Your task to perform on an android device: open app "Indeed Job Search" Image 0: 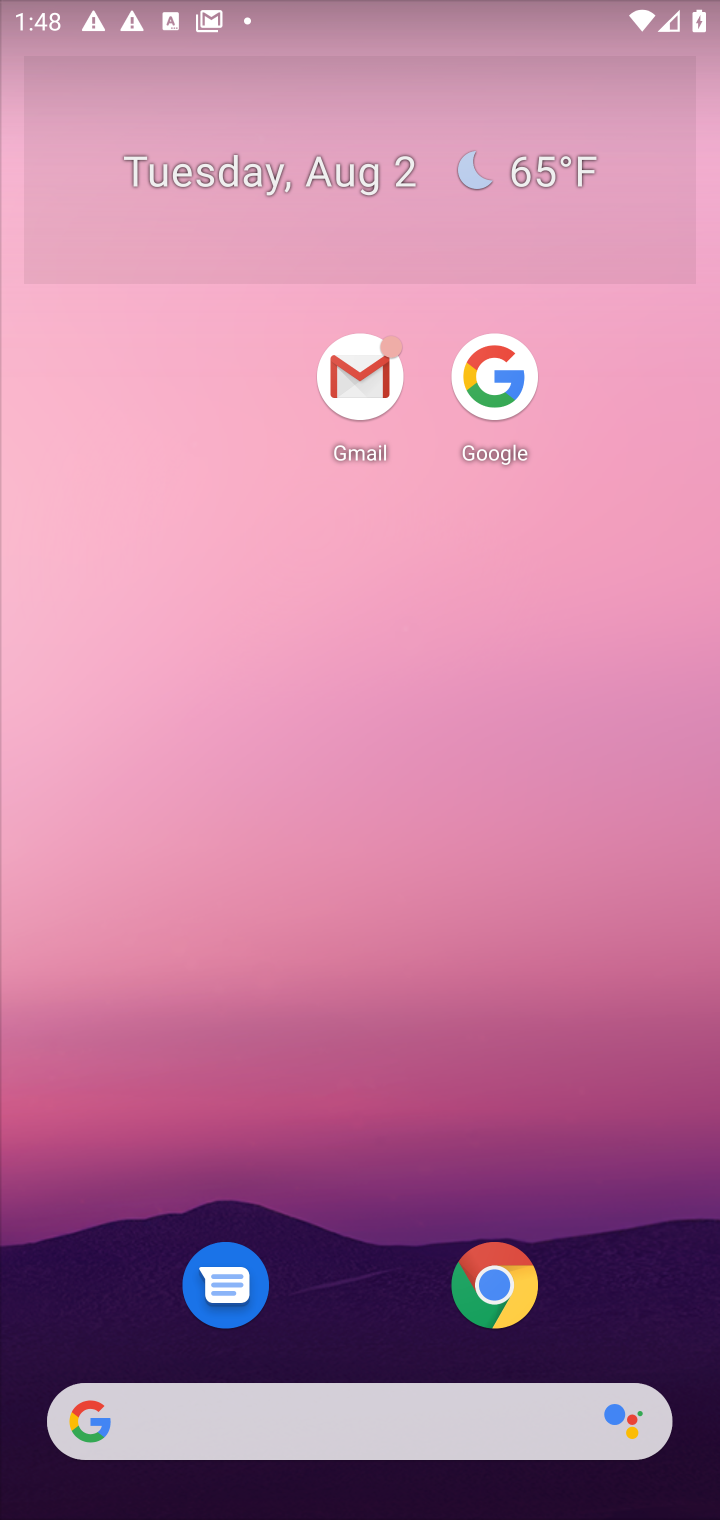
Step 0: drag from (551, 1115) to (542, 79)
Your task to perform on an android device: open app "Indeed Job Search" Image 1: 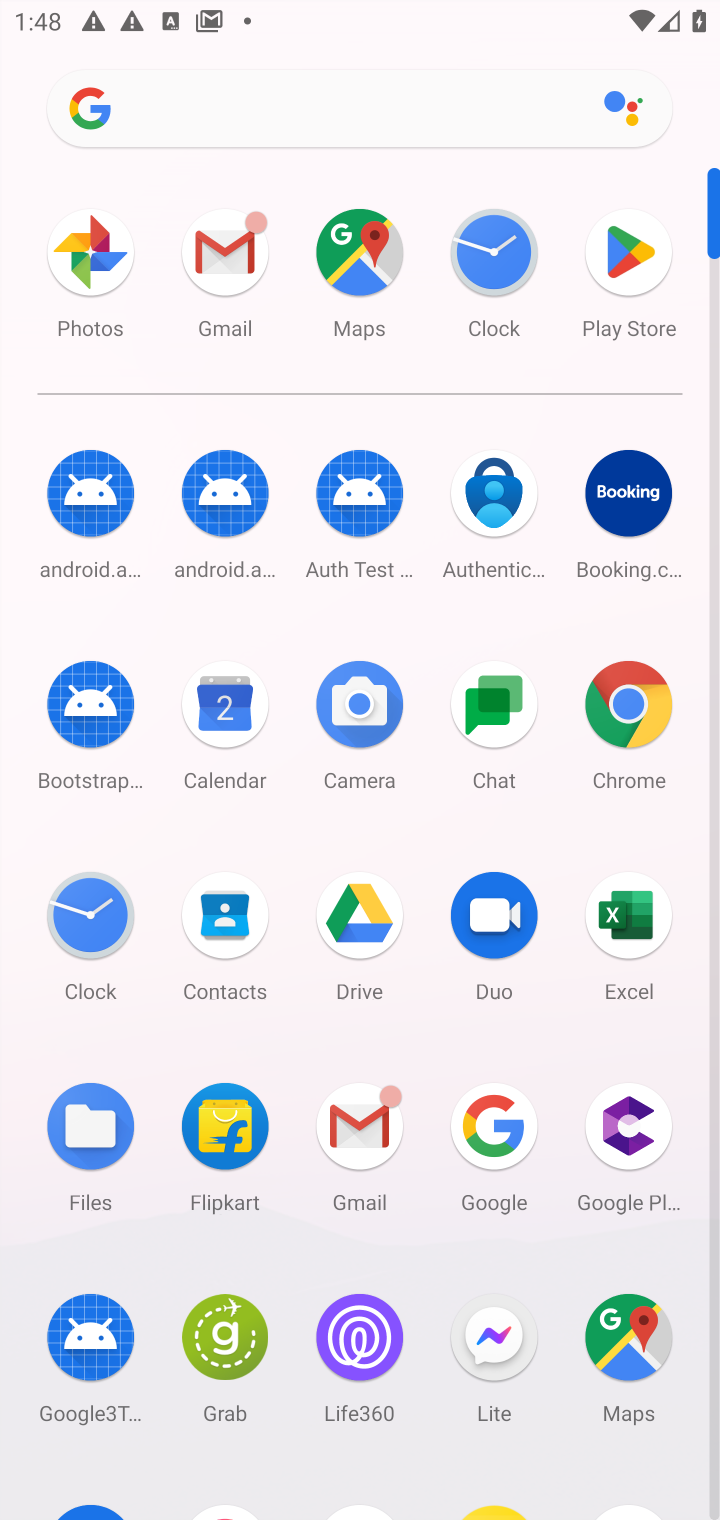
Step 1: drag from (428, 1024) to (447, 437)
Your task to perform on an android device: open app "Indeed Job Search" Image 2: 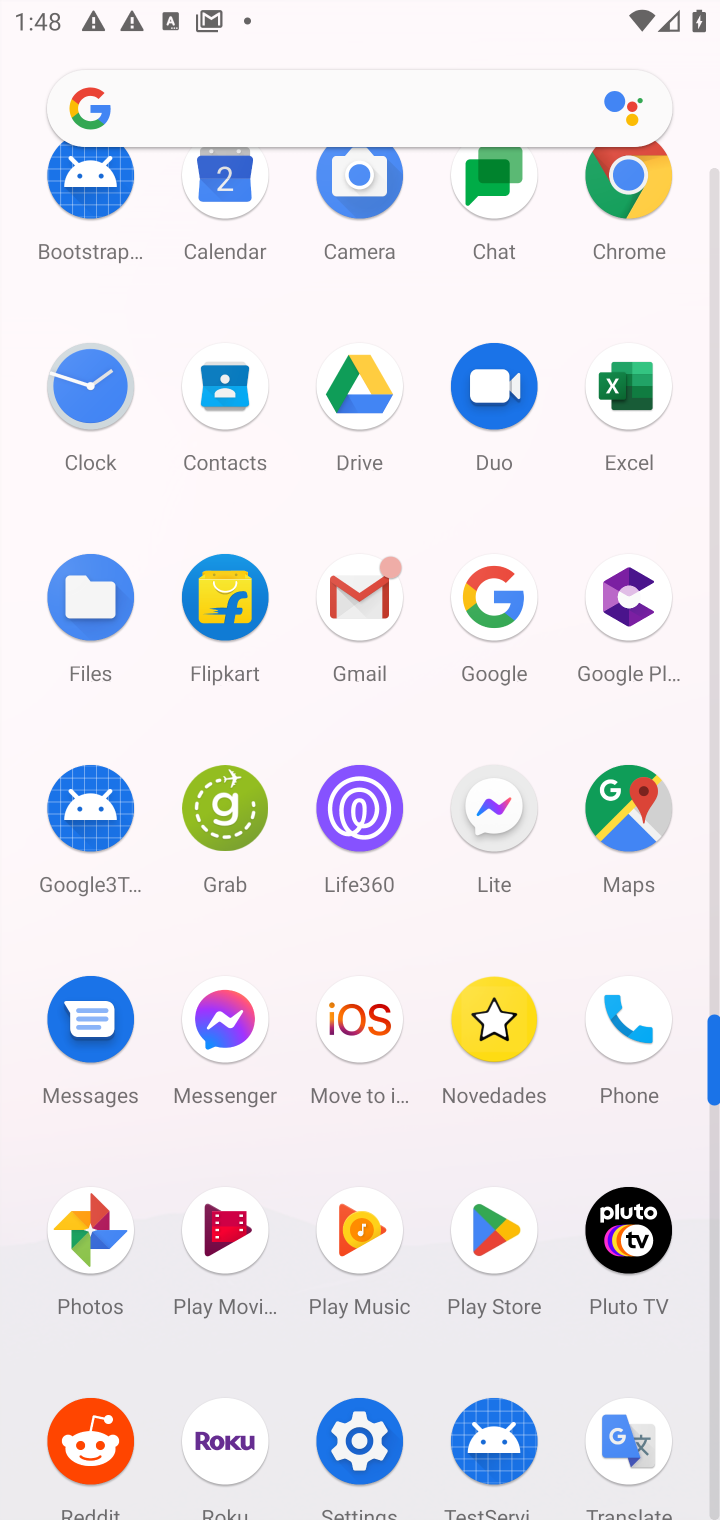
Step 2: click (492, 1244)
Your task to perform on an android device: open app "Indeed Job Search" Image 3: 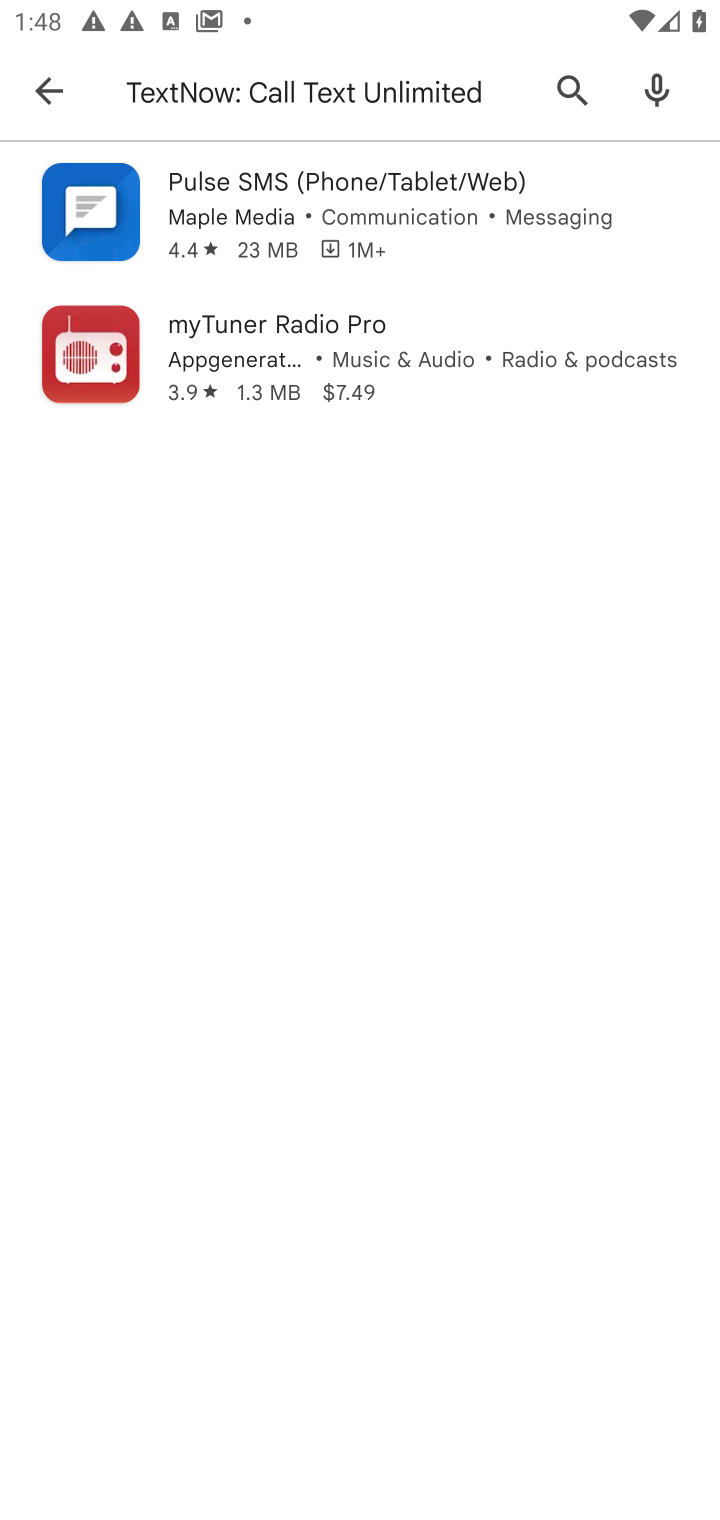
Step 3: click (455, 106)
Your task to perform on an android device: open app "Indeed Job Search" Image 4: 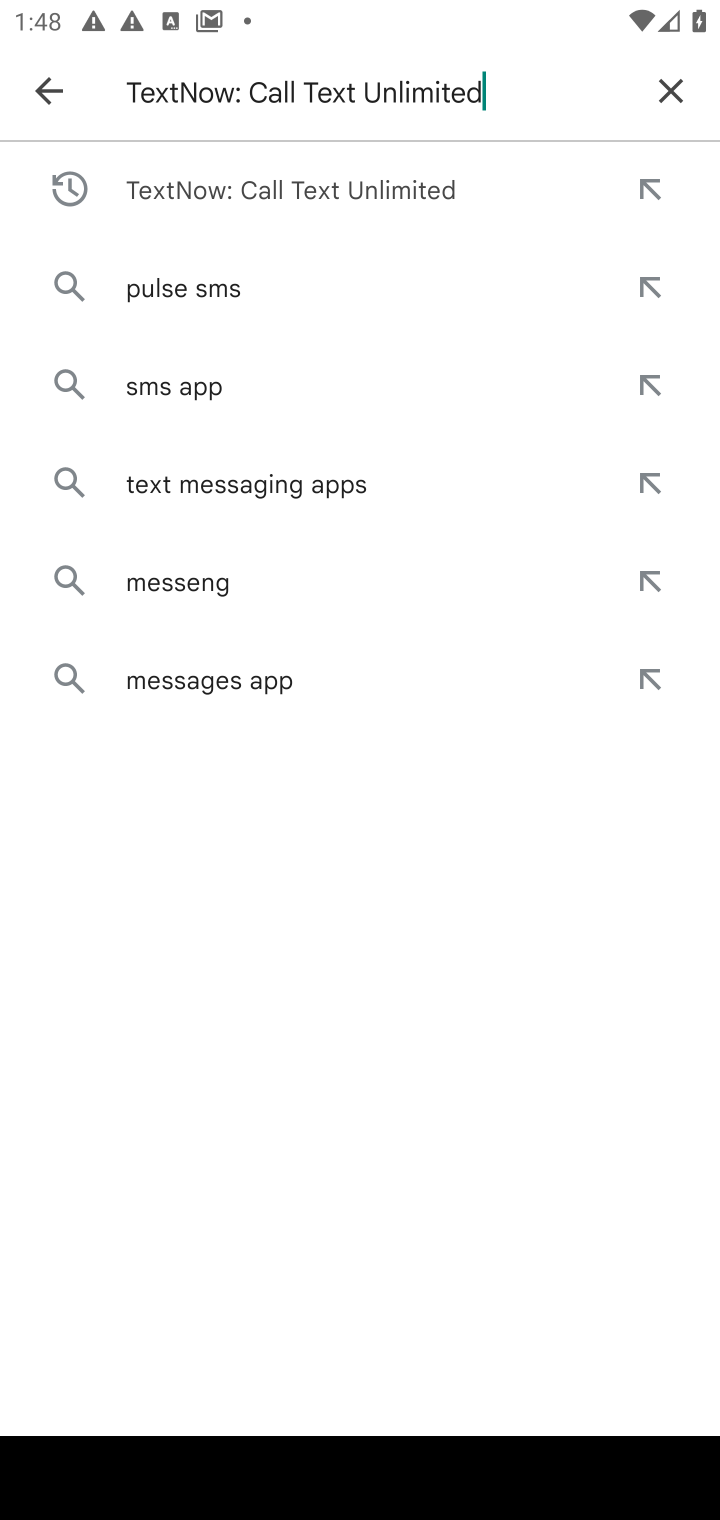
Step 4: click (684, 98)
Your task to perform on an android device: open app "Indeed Job Search" Image 5: 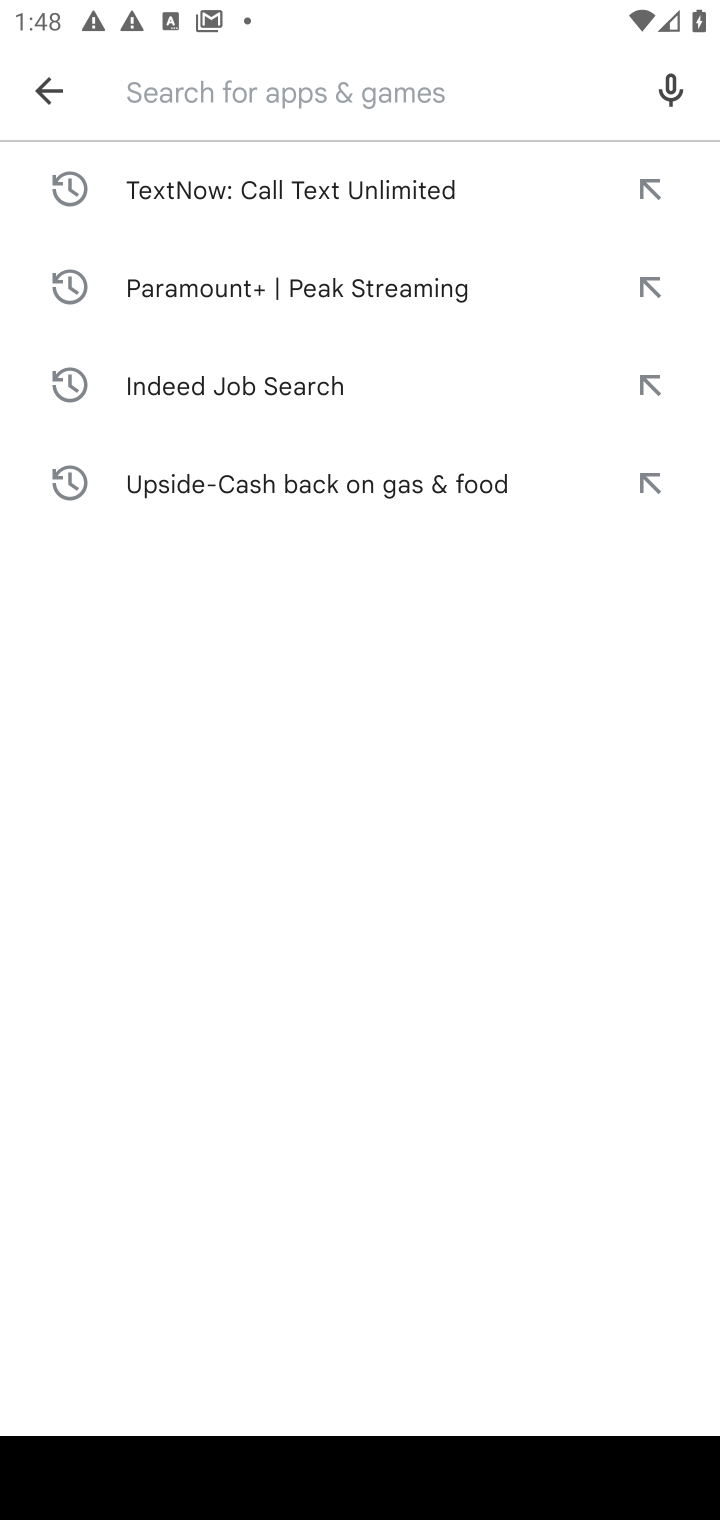
Step 5: type "Indeed Job Search"
Your task to perform on an android device: open app "Indeed Job Search" Image 6: 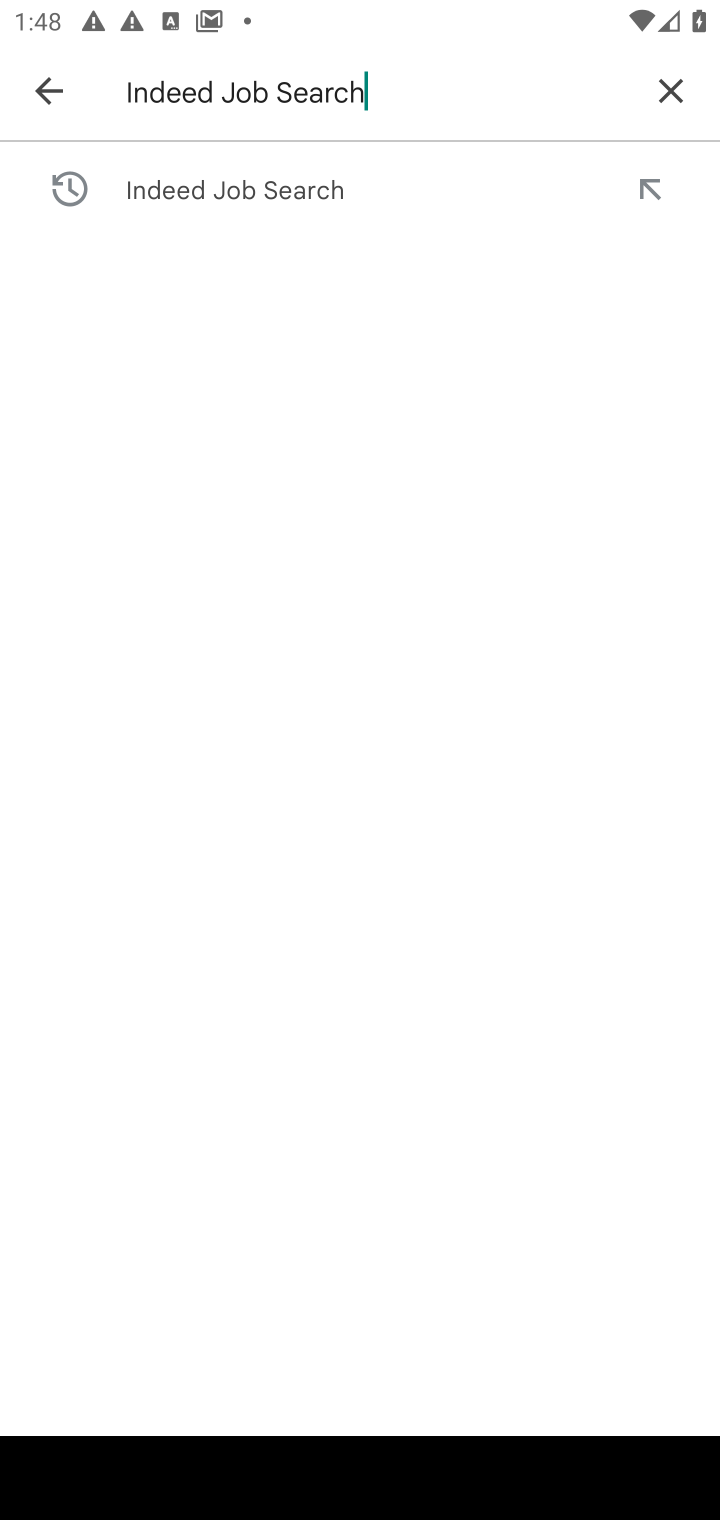
Step 6: click (374, 189)
Your task to perform on an android device: open app "Indeed Job Search" Image 7: 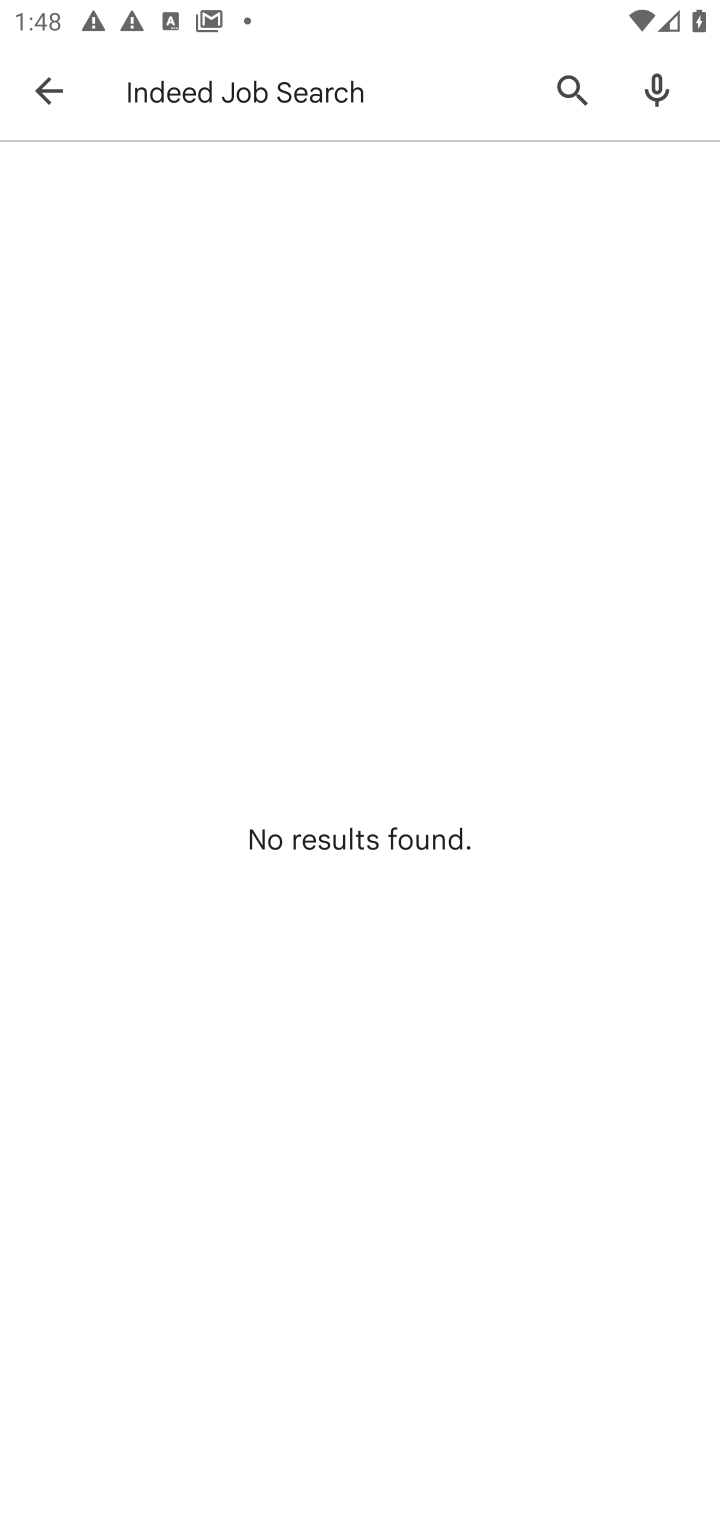
Step 7: task complete